Your task to perform on an android device: change timer sound Image 0: 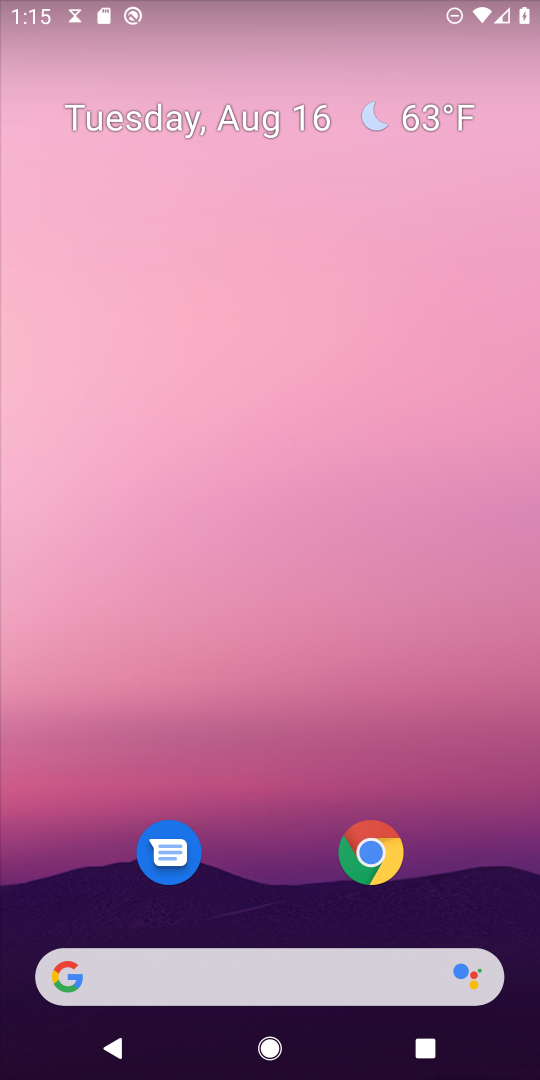
Step 0: drag from (298, 558) to (369, 0)
Your task to perform on an android device: change timer sound Image 1: 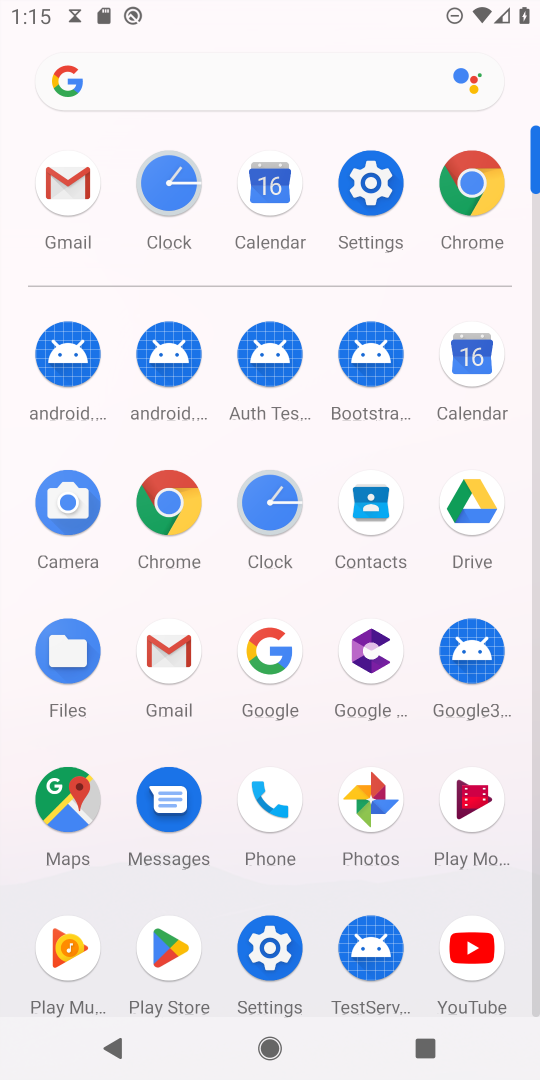
Step 1: click (182, 173)
Your task to perform on an android device: change timer sound Image 2: 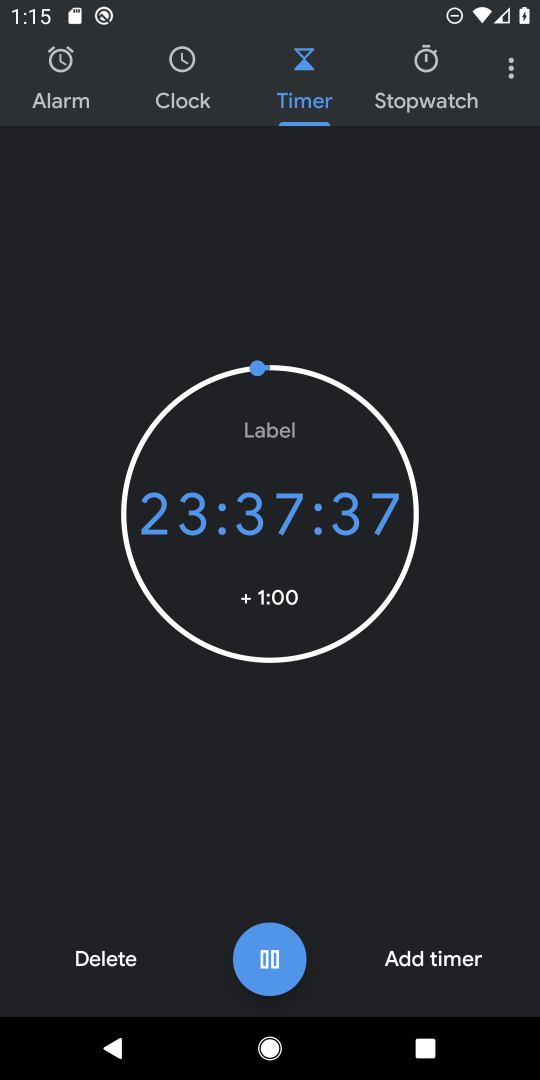
Step 2: click (512, 69)
Your task to perform on an android device: change timer sound Image 3: 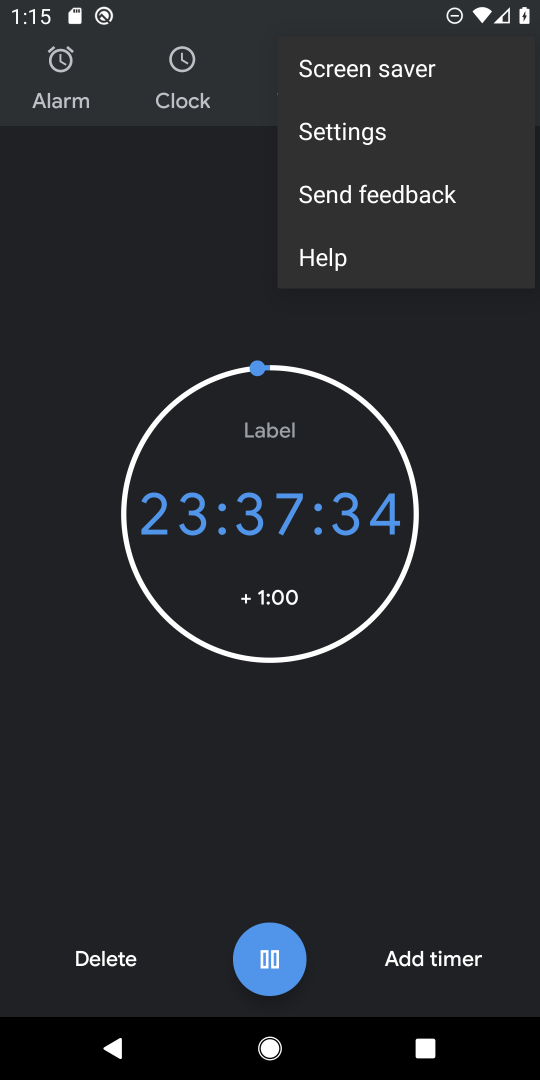
Step 3: click (365, 138)
Your task to perform on an android device: change timer sound Image 4: 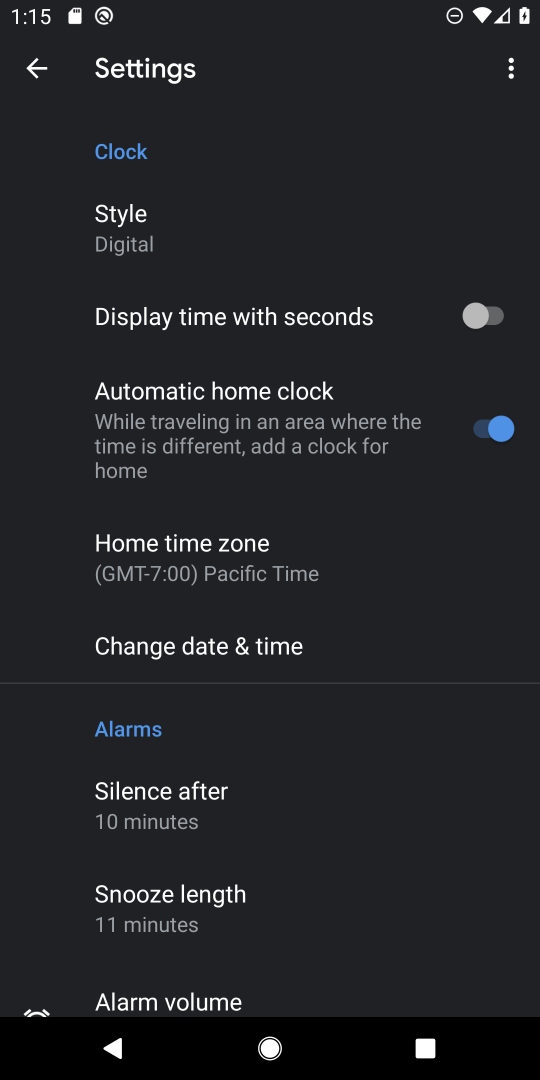
Step 4: drag from (223, 937) to (351, 171)
Your task to perform on an android device: change timer sound Image 5: 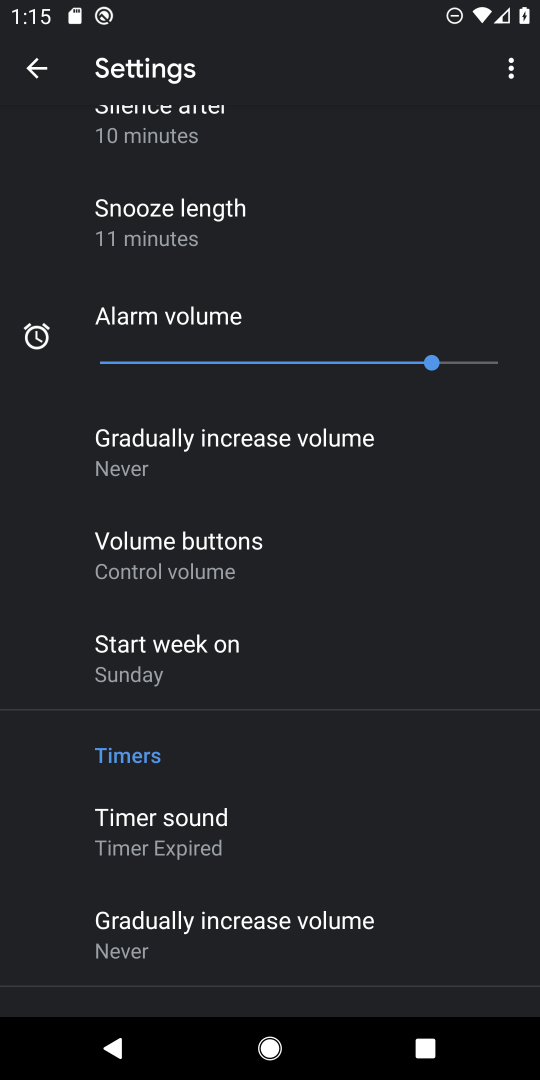
Step 5: click (124, 842)
Your task to perform on an android device: change timer sound Image 6: 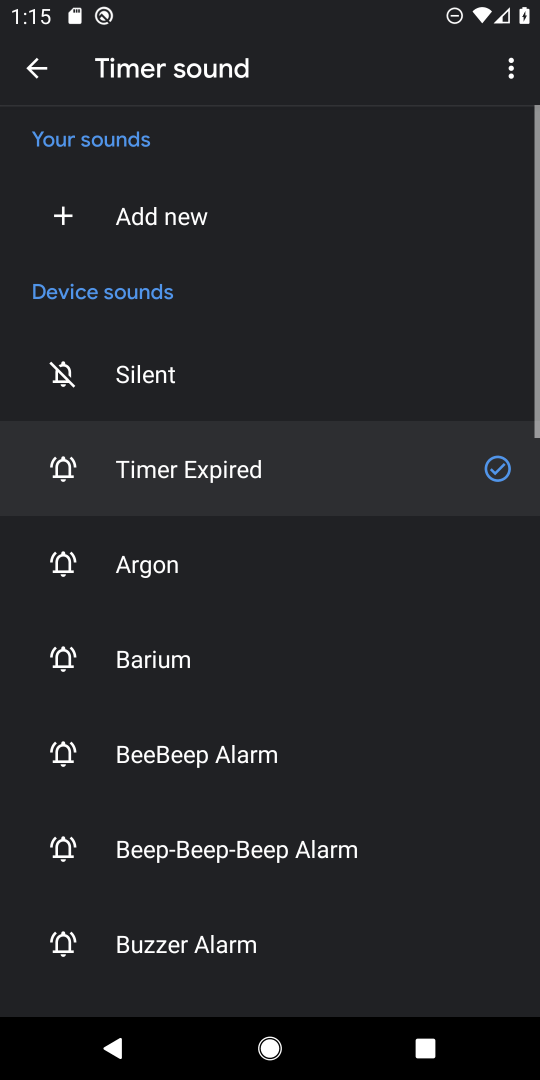
Step 6: click (143, 581)
Your task to perform on an android device: change timer sound Image 7: 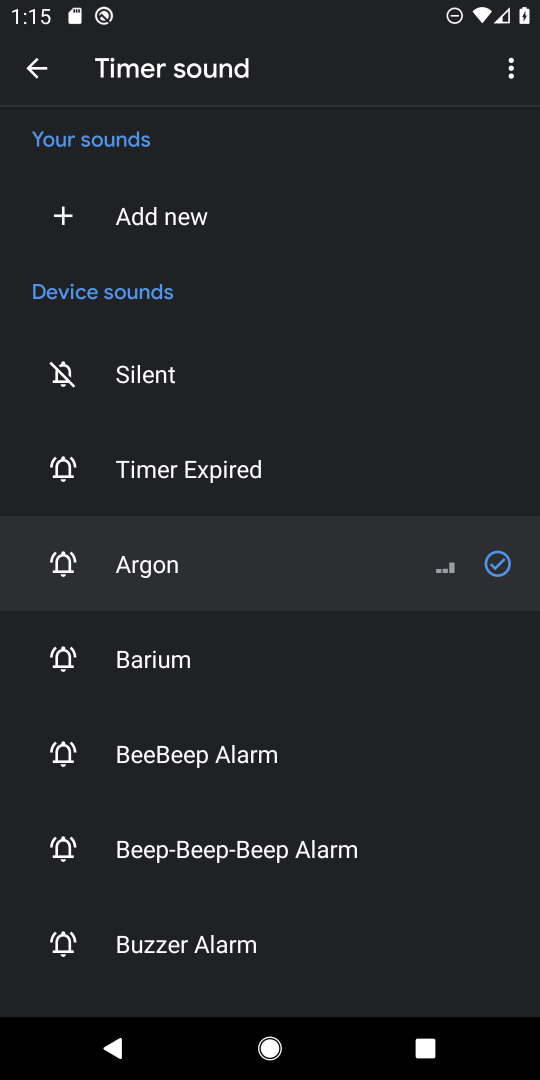
Step 7: task complete